Your task to perform on an android device: refresh tabs in the chrome app Image 0: 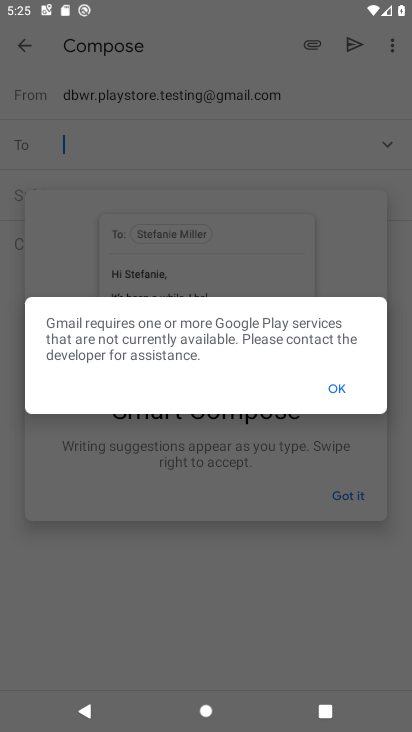
Step 0: press home button
Your task to perform on an android device: refresh tabs in the chrome app Image 1: 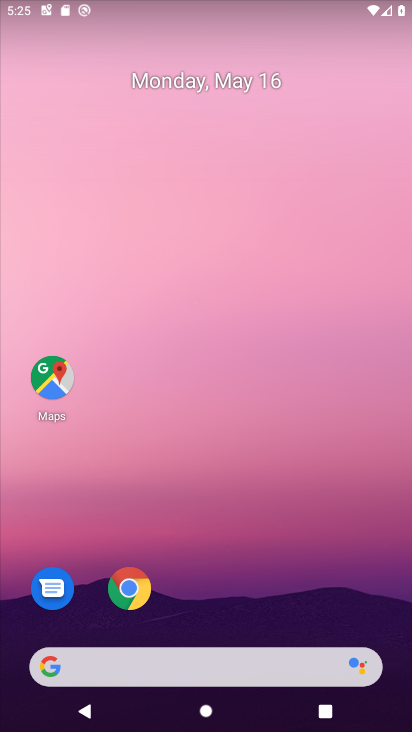
Step 1: click (131, 584)
Your task to perform on an android device: refresh tabs in the chrome app Image 2: 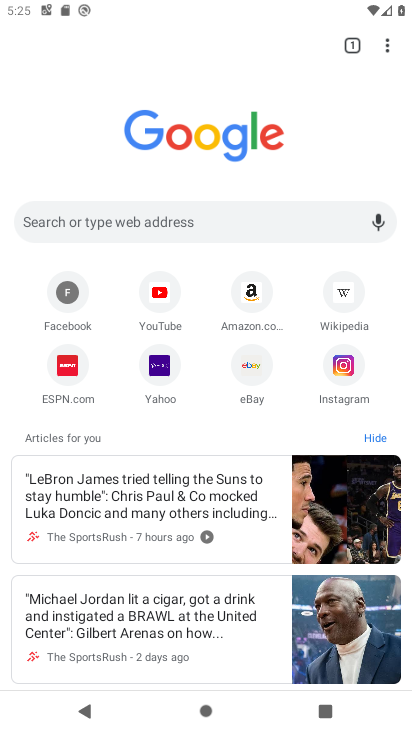
Step 2: click (385, 55)
Your task to perform on an android device: refresh tabs in the chrome app Image 3: 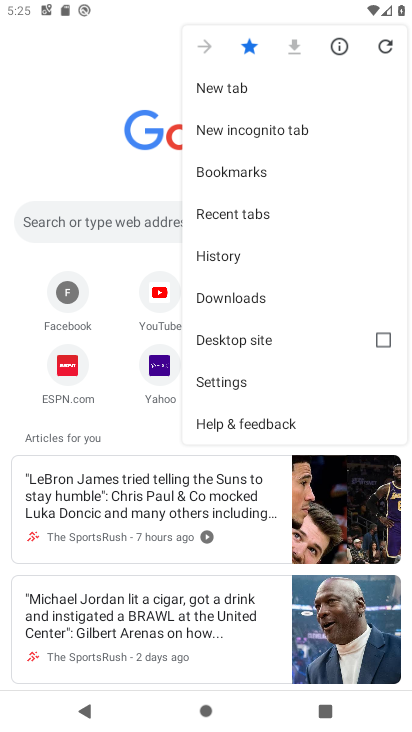
Step 3: click (385, 55)
Your task to perform on an android device: refresh tabs in the chrome app Image 4: 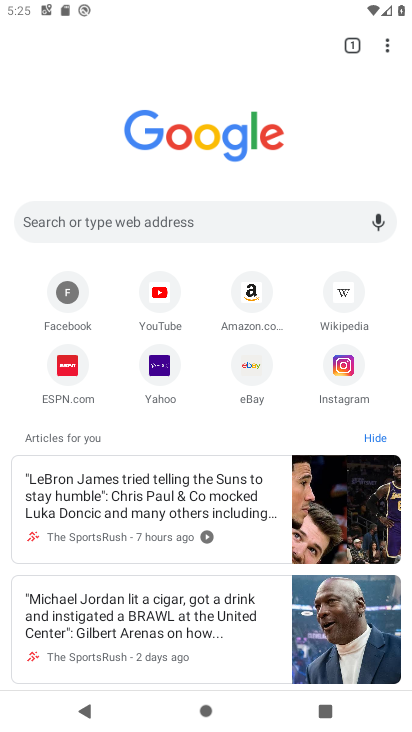
Step 4: task complete